Your task to perform on an android device: Go to Yahoo.com Image 0: 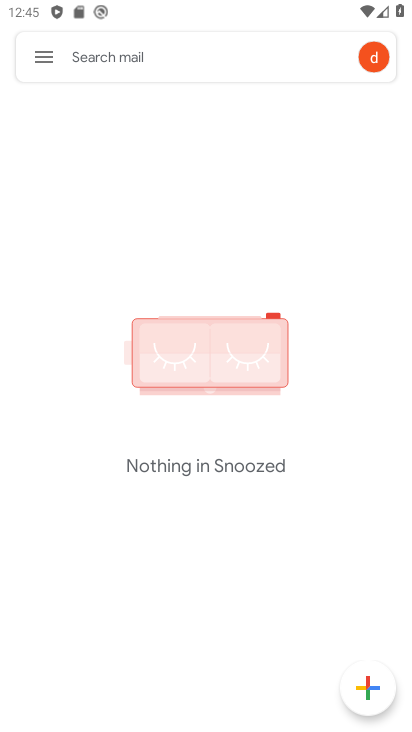
Step 0: press home button
Your task to perform on an android device: Go to Yahoo.com Image 1: 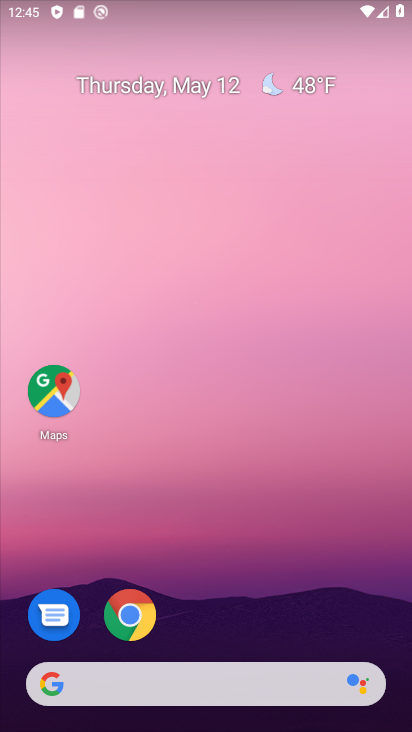
Step 1: drag from (127, 675) to (232, 117)
Your task to perform on an android device: Go to Yahoo.com Image 2: 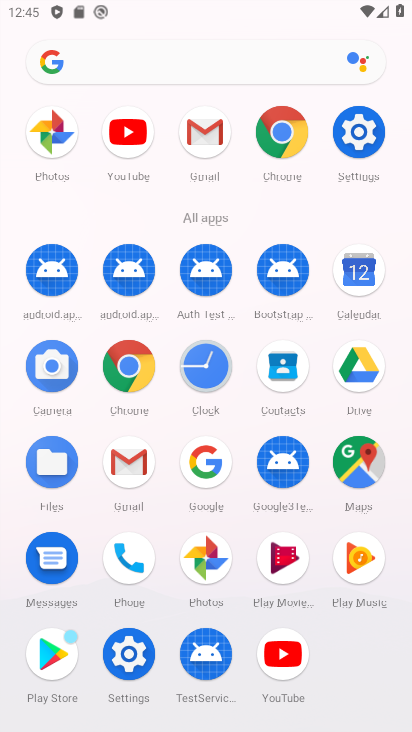
Step 2: click (130, 369)
Your task to perform on an android device: Go to Yahoo.com Image 3: 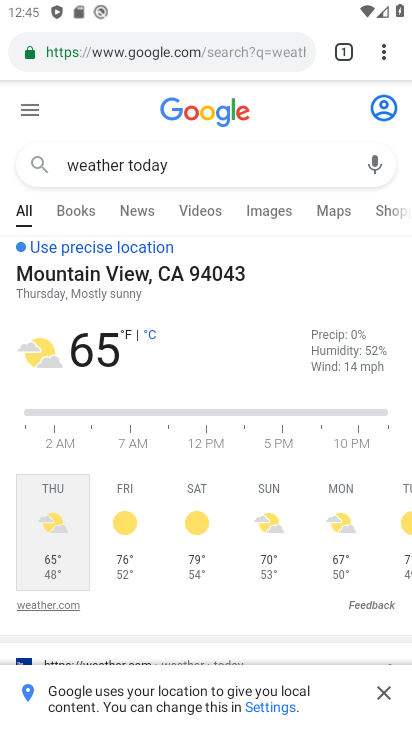
Step 3: click (378, 47)
Your task to perform on an android device: Go to Yahoo.com Image 4: 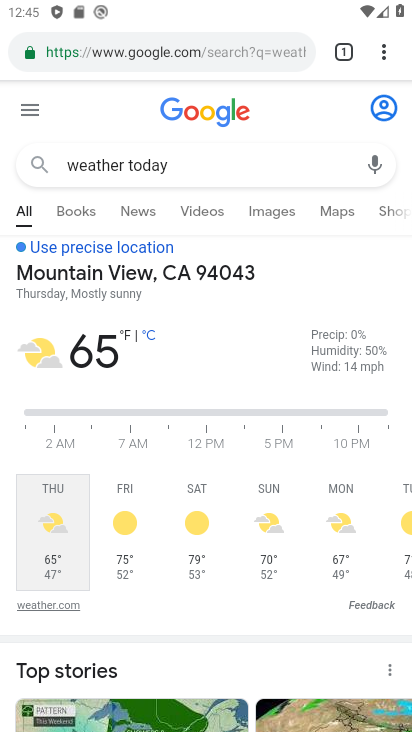
Step 4: drag from (375, 52) to (195, 90)
Your task to perform on an android device: Go to Yahoo.com Image 5: 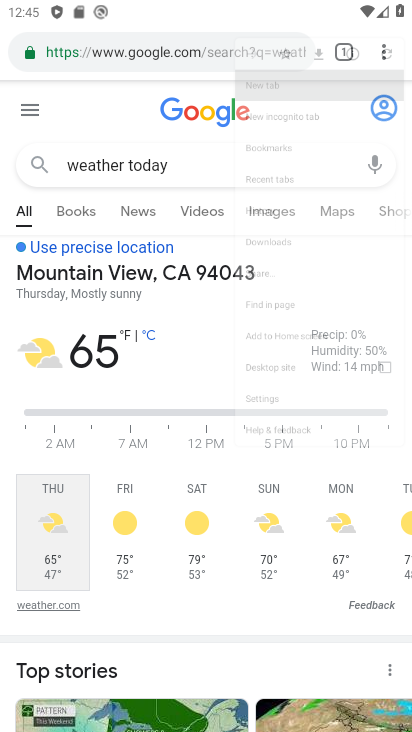
Step 5: click (195, 90)
Your task to perform on an android device: Go to Yahoo.com Image 6: 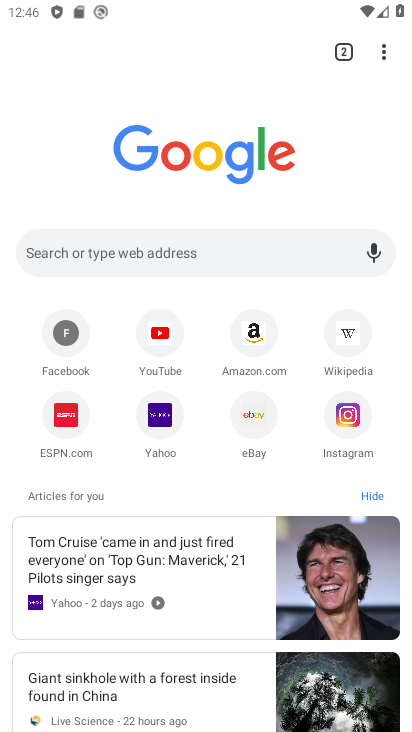
Step 6: click (162, 412)
Your task to perform on an android device: Go to Yahoo.com Image 7: 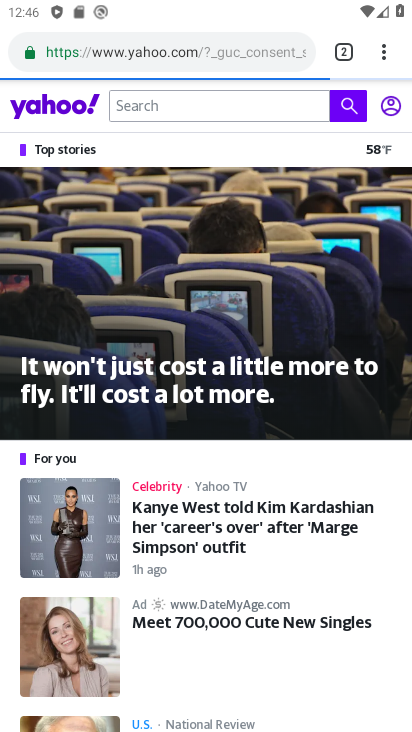
Step 7: task complete